Your task to perform on an android device: open the mobile data screen to see how much data has been used Image 0: 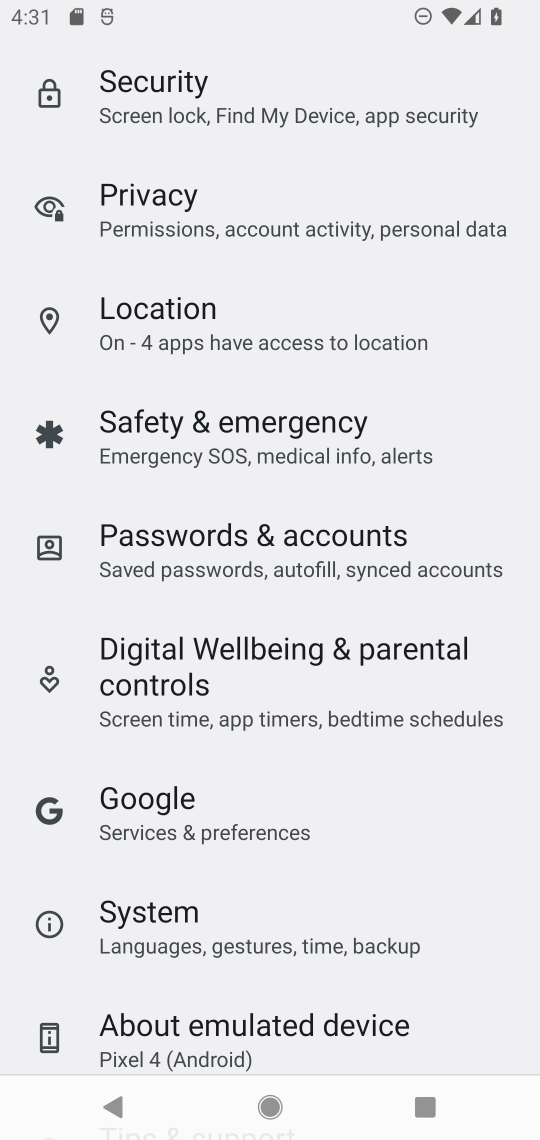
Step 0: drag from (253, 295) to (280, 888)
Your task to perform on an android device: open the mobile data screen to see how much data has been used Image 1: 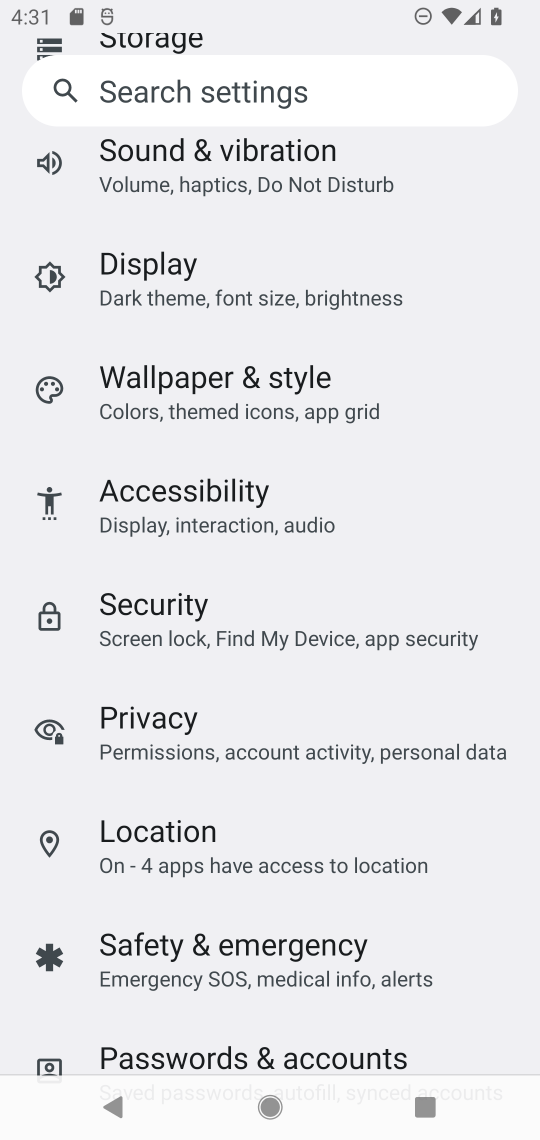
Step 1: drag from (240, 164) to (259, 793)
Your task to perform on an android device: open the mobile data screen to see how much data has been used Image 2: 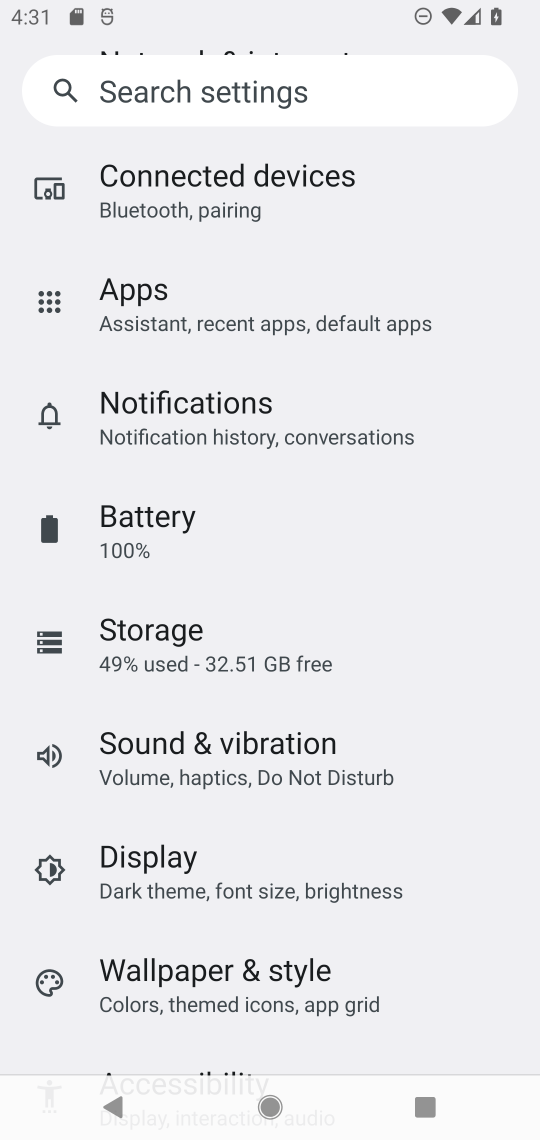
Step 2: drag from (236, 179) to (241, 949)
Your task to perform on an android device: open the mobile data screen to see how much data has been used Image 3: 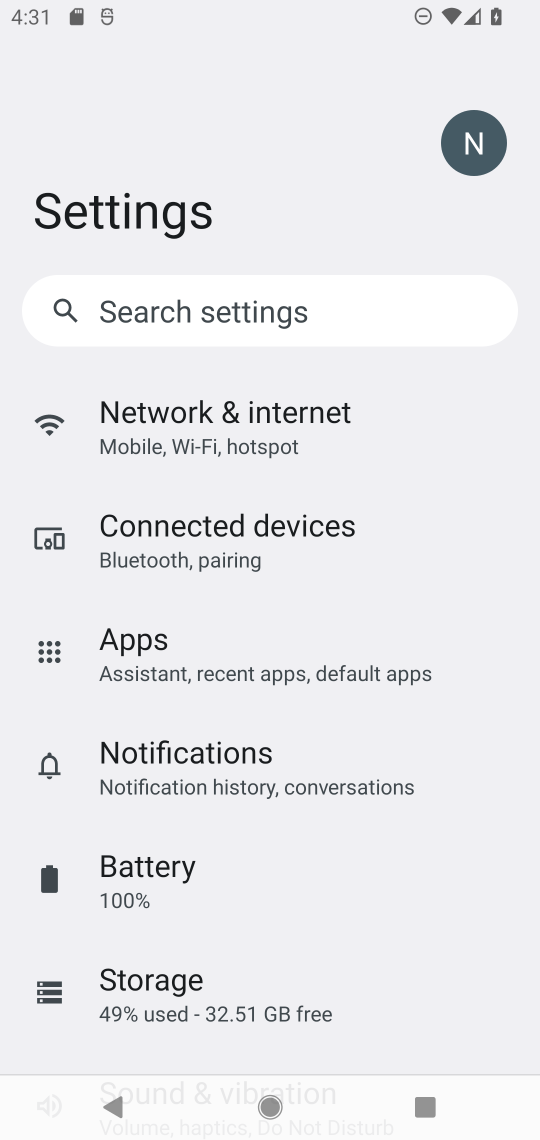
Step 3: click (184, 422)
Your task to perform on an android device: open the mobile data screen to see how much data has been used Image 4: 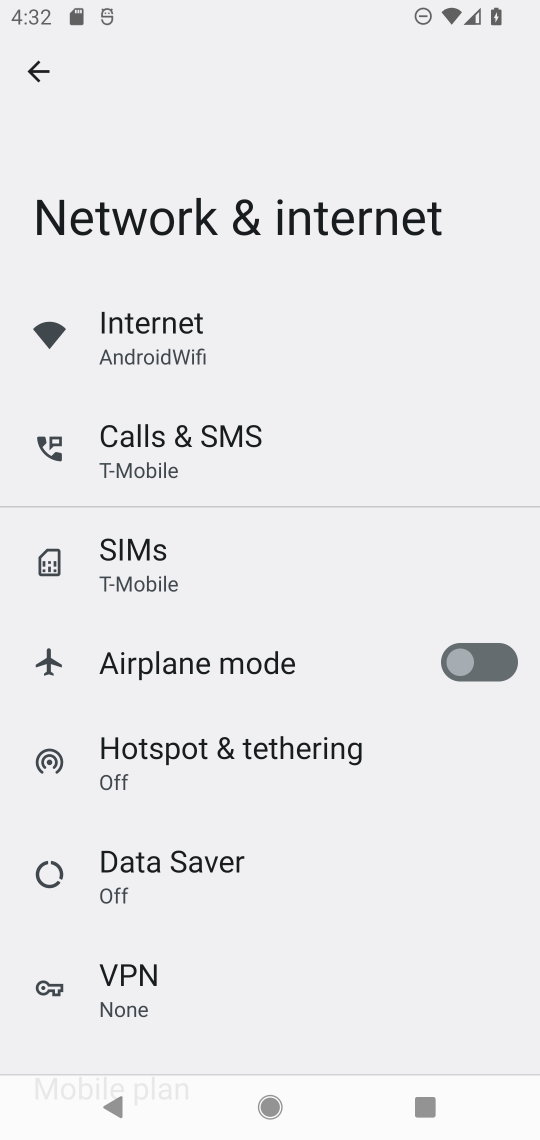
Step 4: click (154, 352)
Your task to perform on an android device: open the mobile data screen to see how much data has been used Image 5: 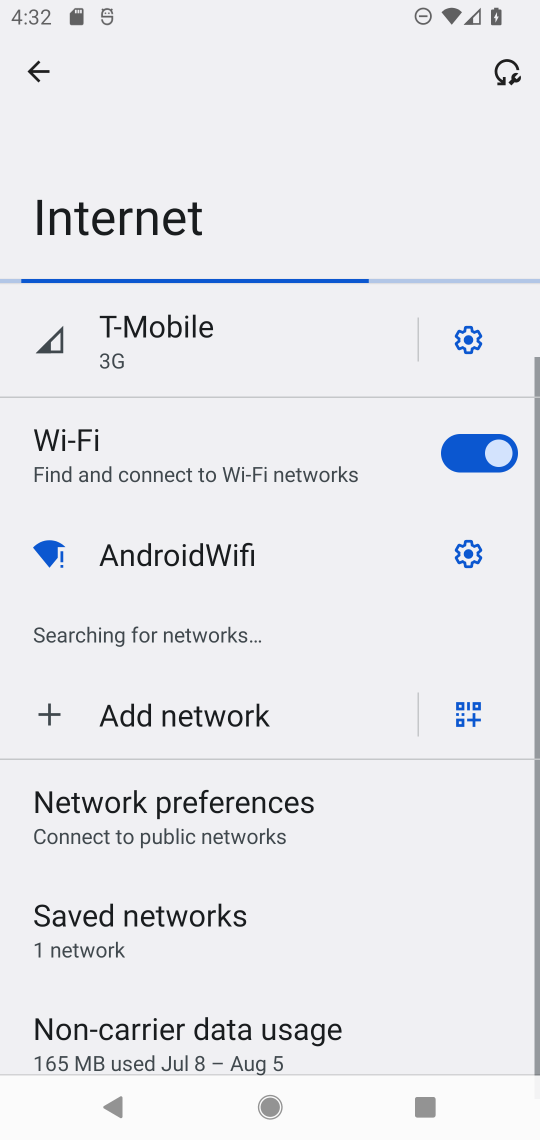
Step 5: drag from (217, 934) to (217, 651)
Your task to perform on an android device: open the mobile data screen to see how much data has been used Image 6: 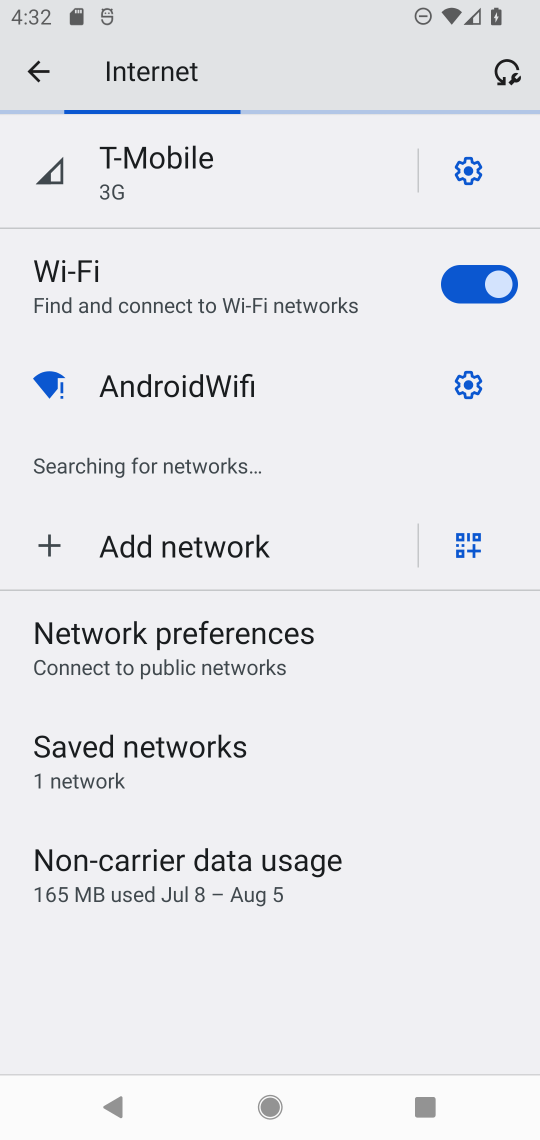
Step 6: click (187, 871)
Your task to perform on an android device: open the mobile data screen to see how much data has been used Image 7: 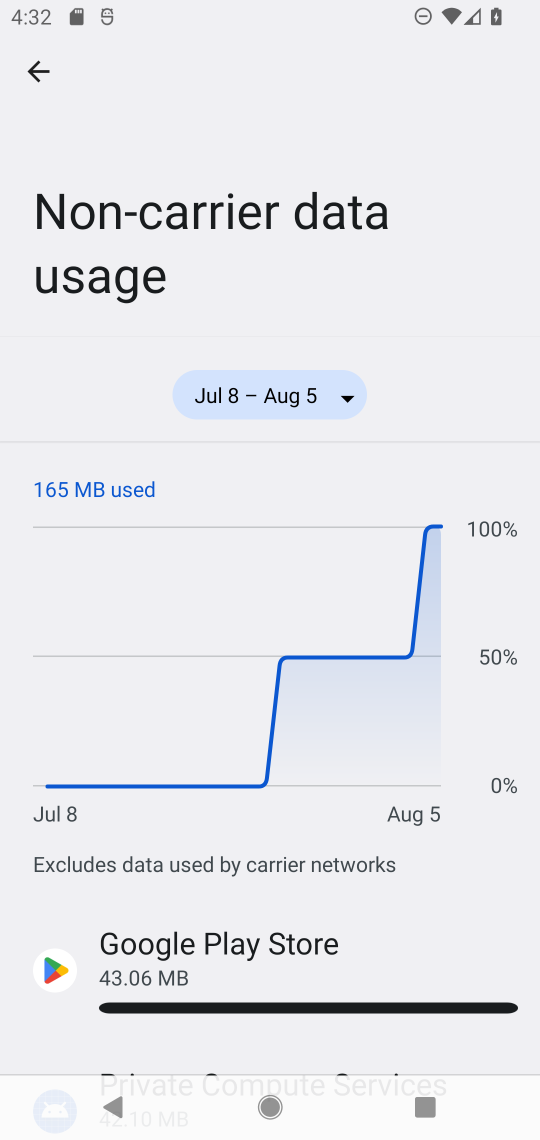
Step 7: task complete